Your task to perform on an android device: Open CNN.com Image 0: 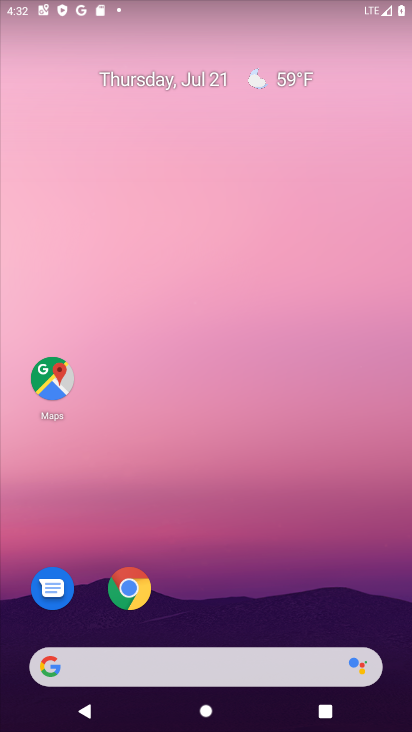
Step 0: drag from (236, 722) to (246, 252)
Your task to perform on an android device: Open CNN.com Image 1: 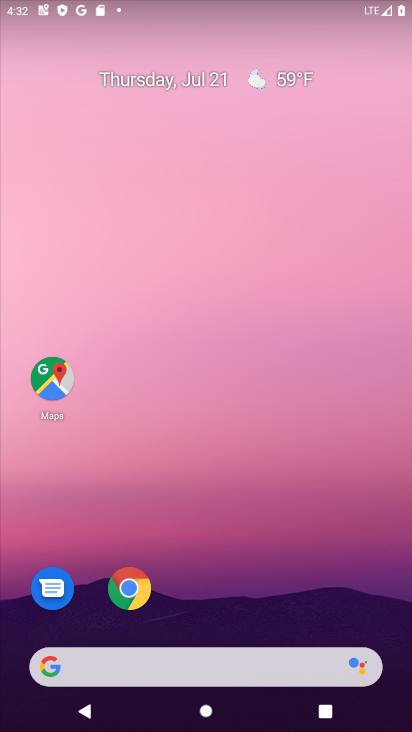
Step 1: drag from (223, 719) to (280, 169)
Your task to perform on an android device: Open CNN.com Image 2: 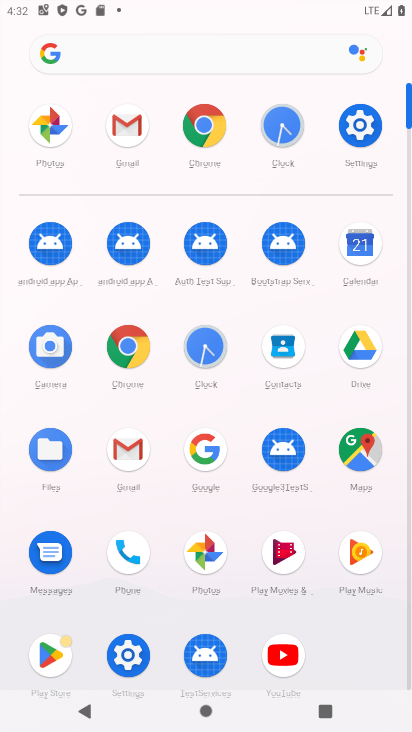
Step 2: click (211, 131)
Your task to perform on an android device: Open CNN.com Image 3: 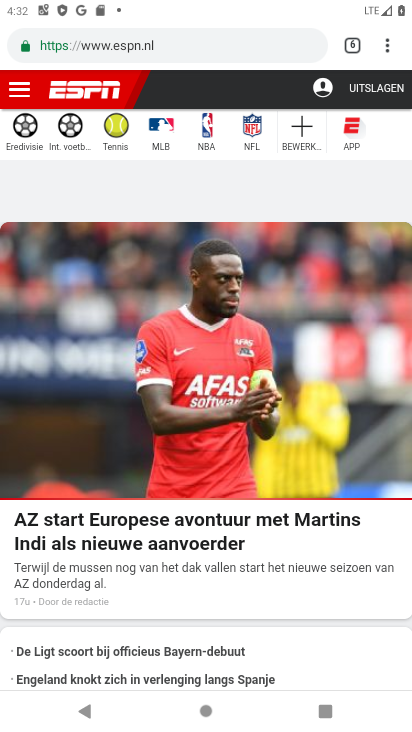
Step 3: click (387, 40)
Your task to perform on an android device: Open CNN.com Image 4: 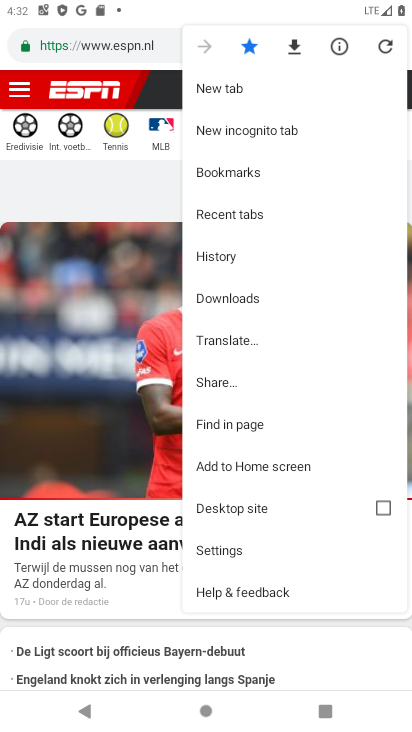
Step 4: click (231, 85)
Your task to perform on an android device: Open CNN.com Image 5: 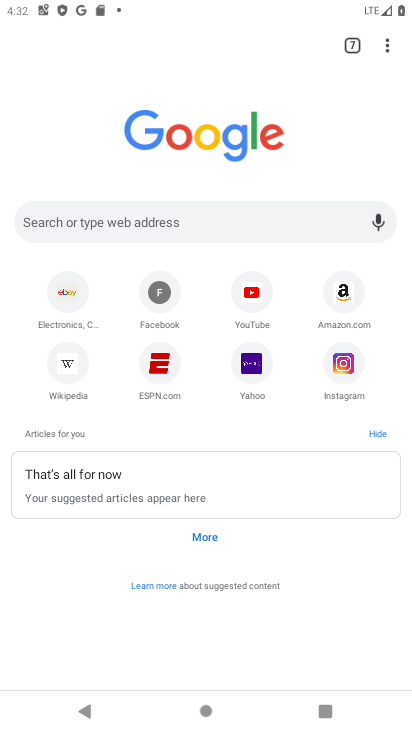
Step 5: click (247, 222)
Your task to perform on an android device: Open CNN.com Image 6: 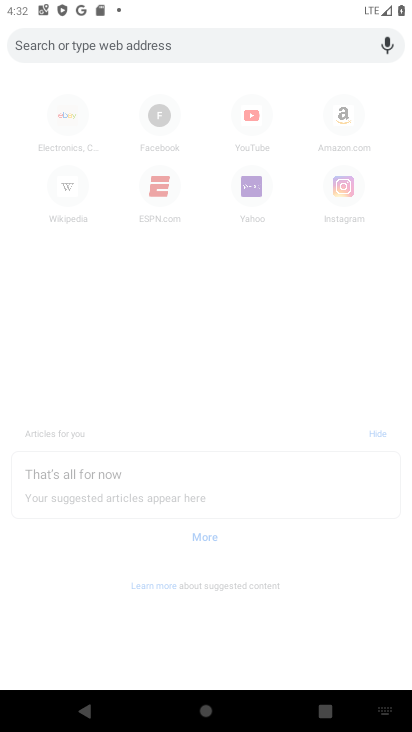
Step 6: type "cnn.com"
Your task to perform on an android device: Open CNN.com Image 7: 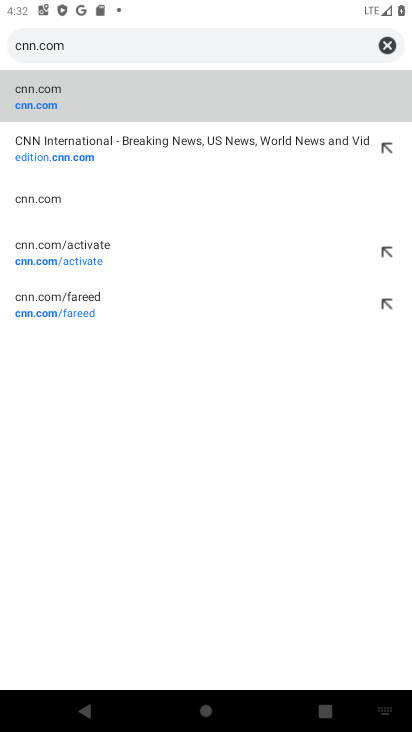
Step 7: click (45, 91)
Your task to perform on an android device: Open CNN.com Image 8: 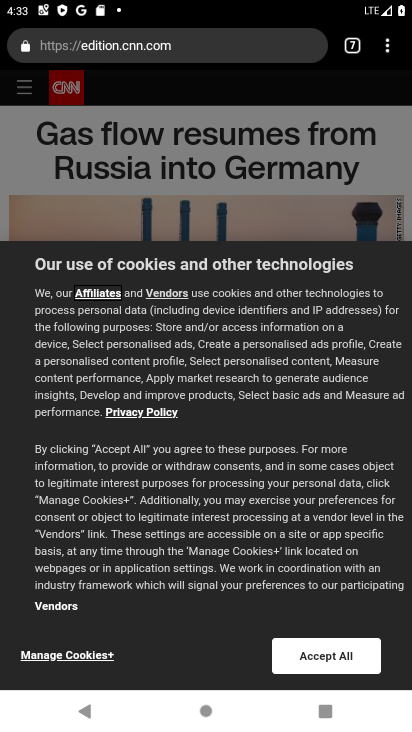
Step 8: task complete